Your task to perform on an android device: Go to CNN.com Image 0: 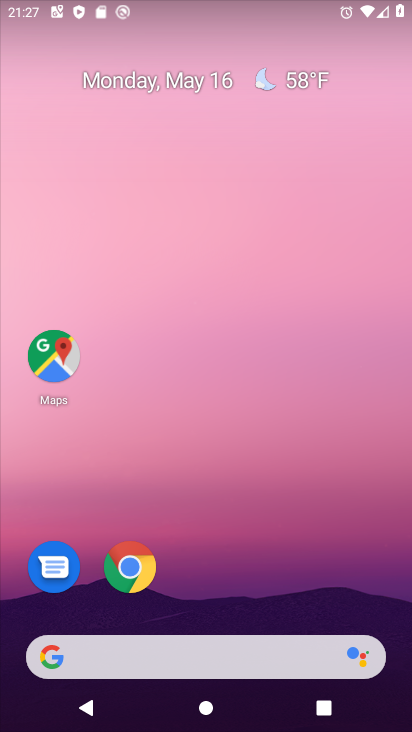
Step 0: click (129, 562)
Your task to perform on an android device: Go to CNN.com Image 1: 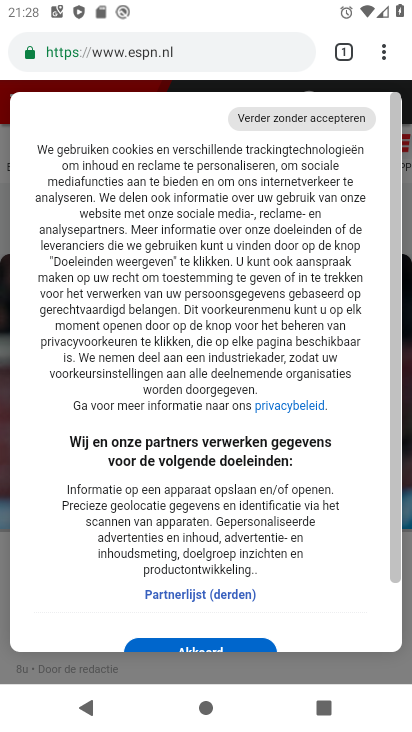
Step 1: click (375, 51)
Your task to perform on an android device: Go to CNN.com Image 2: 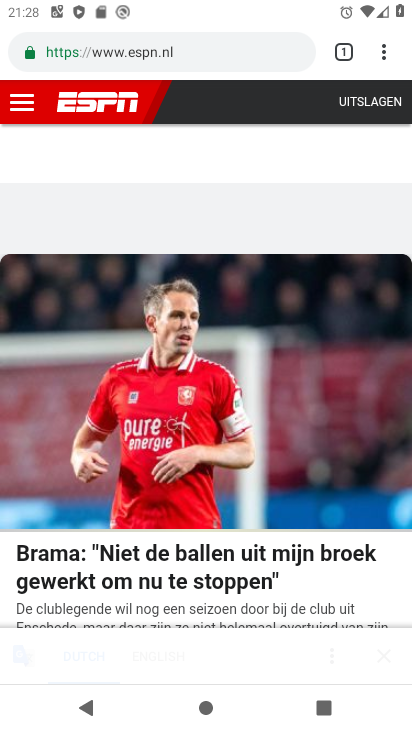
Step 2: click (379, 50)
Your task to perform on an android device: Go to CNN.com Image 3: 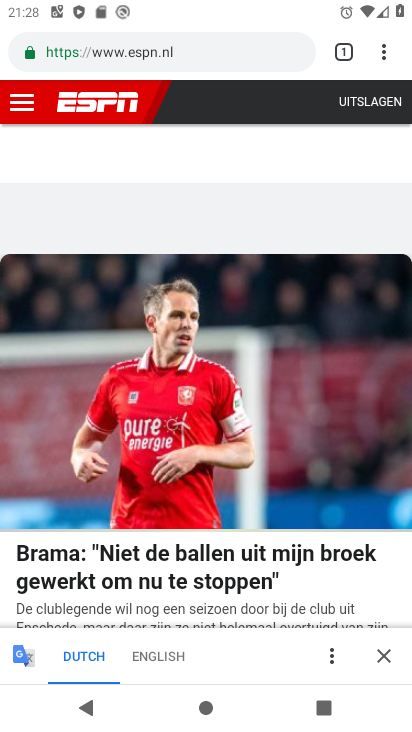
Step 3: click (375, 48)
Your task to perform on an android device: Go to CNN.com Image 4: 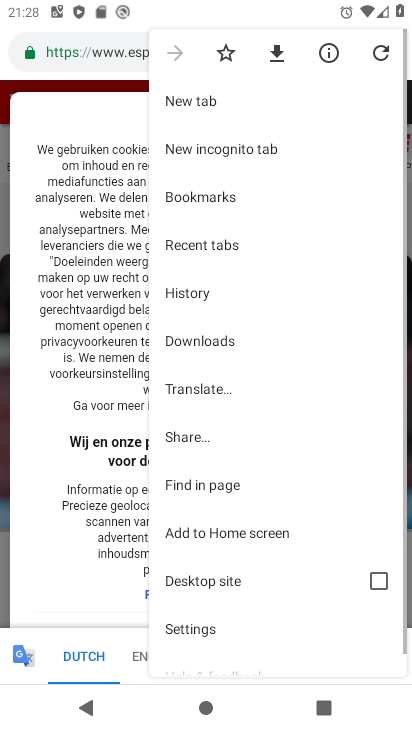
Step 4: click (221, 93)
Your task to perform on an android device: Go to CNN.com Image 5: 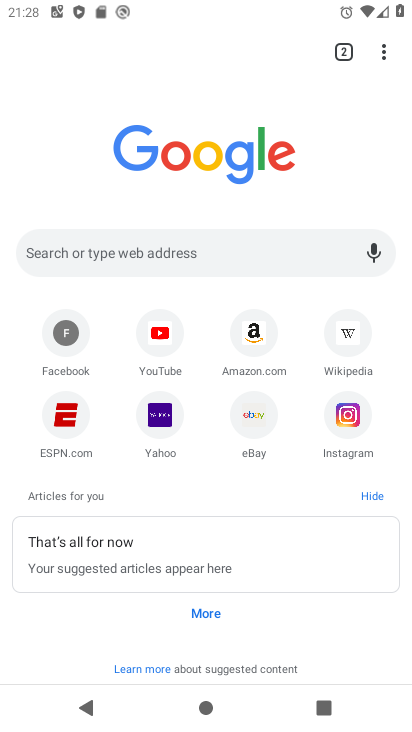
Step 5: click (223, 240)
Your task to perform on an android device: Go to CNN.com Image 6: 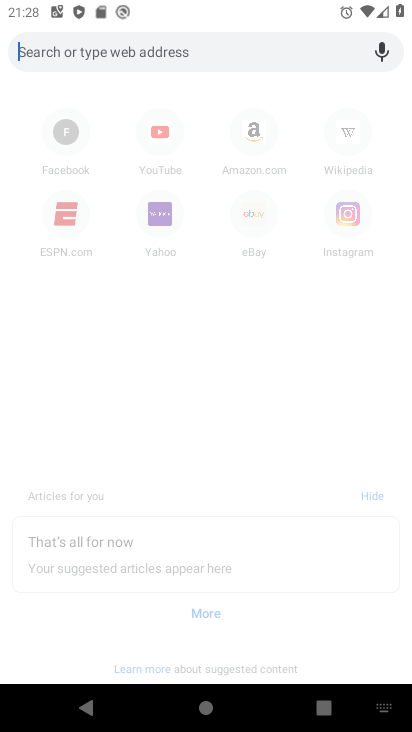
Step 6: type "CNN.com"
Your task to perform on an android device: Go to CNN.com Image 7: 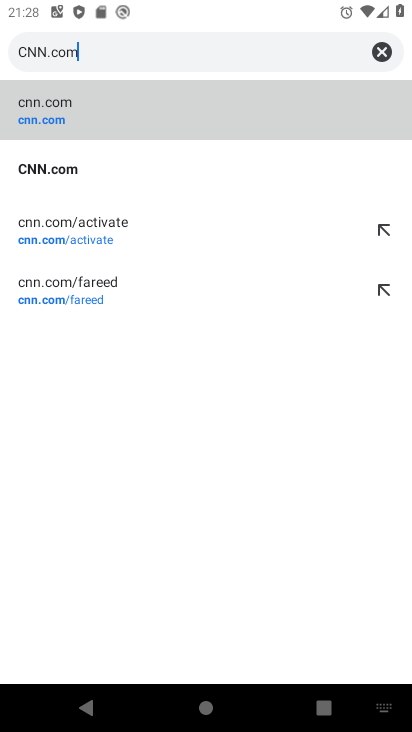
Step 7: click (170, 108)
Your task to perform on an android device: Go to CNN.com Image 8: 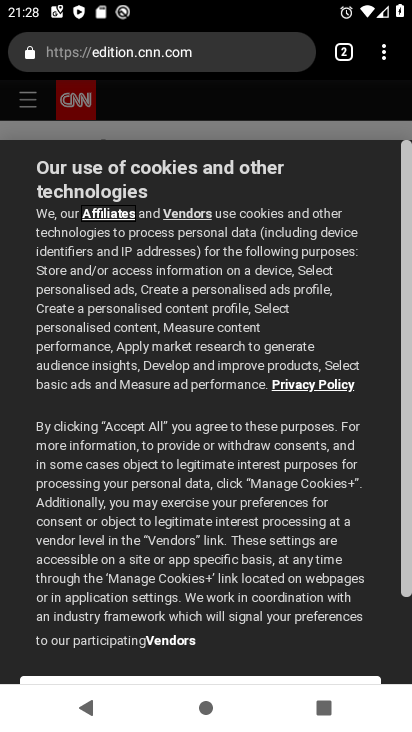
Step 8: drag from (226, 477) to (257, 193)
Your task to perform on an android device: Go to CNN.com Image 9: 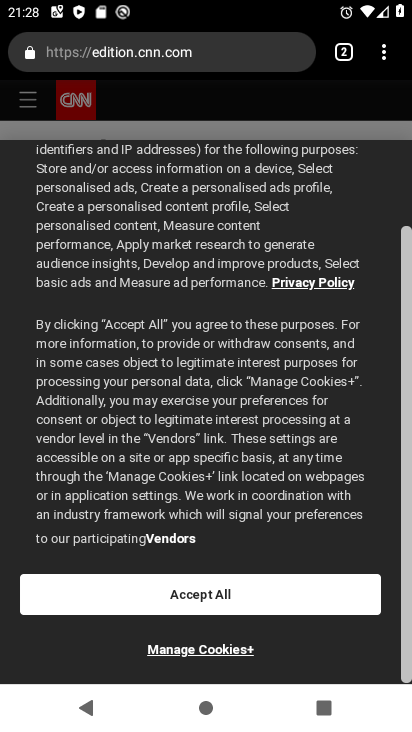
Step 9: click (214, 583)
Your task to perform on an android device: Go to CNN.com Image 10: 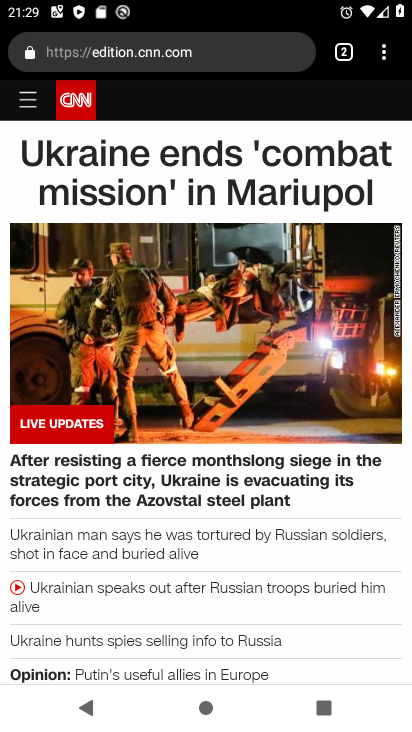
Step 10: task complete